Your task to perform on an android device: Show the shopping cart on walmart.com. Search for "alienware aurora" on walmart.com, select the first entry, add it to the cart, then select checkout. Image 0: 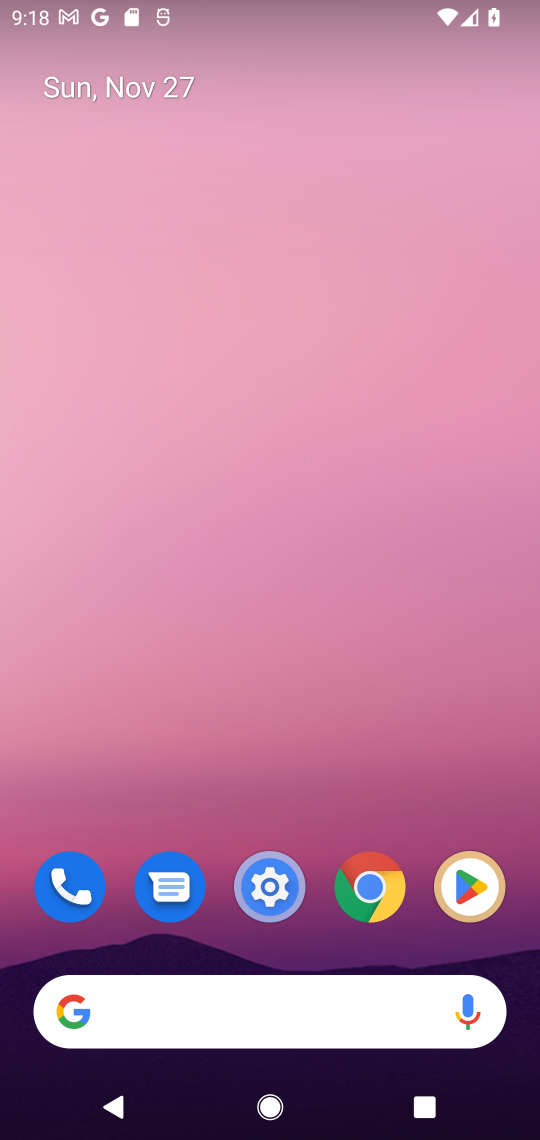
Step 0: click (354, 1030)
Your task to perform on an android device: Show the shopping cart on walmart.com. Search for "alienware aurora" on walmart.com, select the first entry, add it to the cart, then select checkout. Image 1: 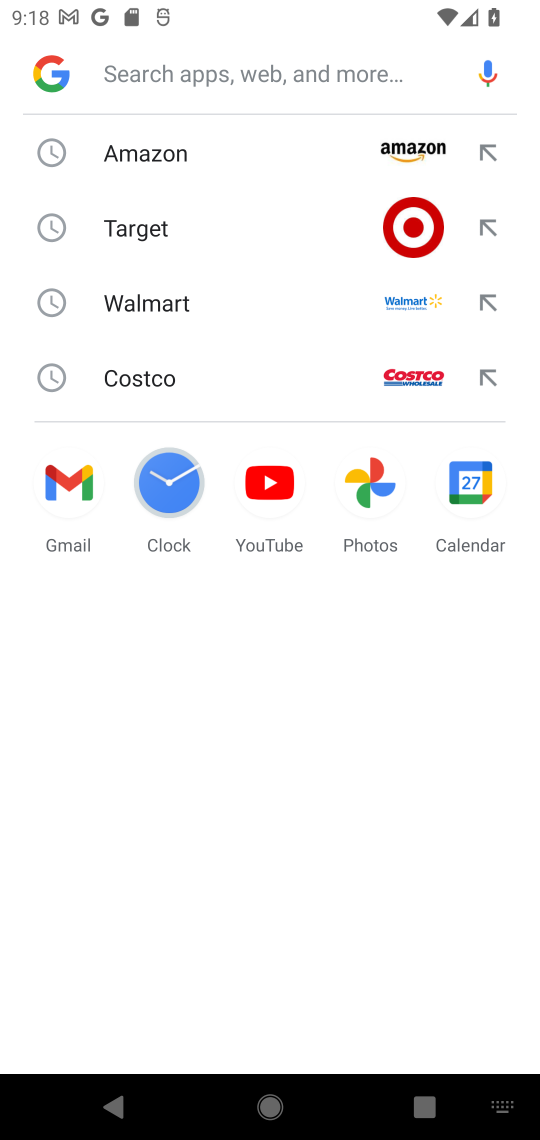
Step 1: type "alienware aurora"
Your task to perform on an android device: Show the shopping cart on walmart.com. Search for "alienware aurora" on walmart.com, select the first entry, add it to the cart, then select checkout. Image 2: 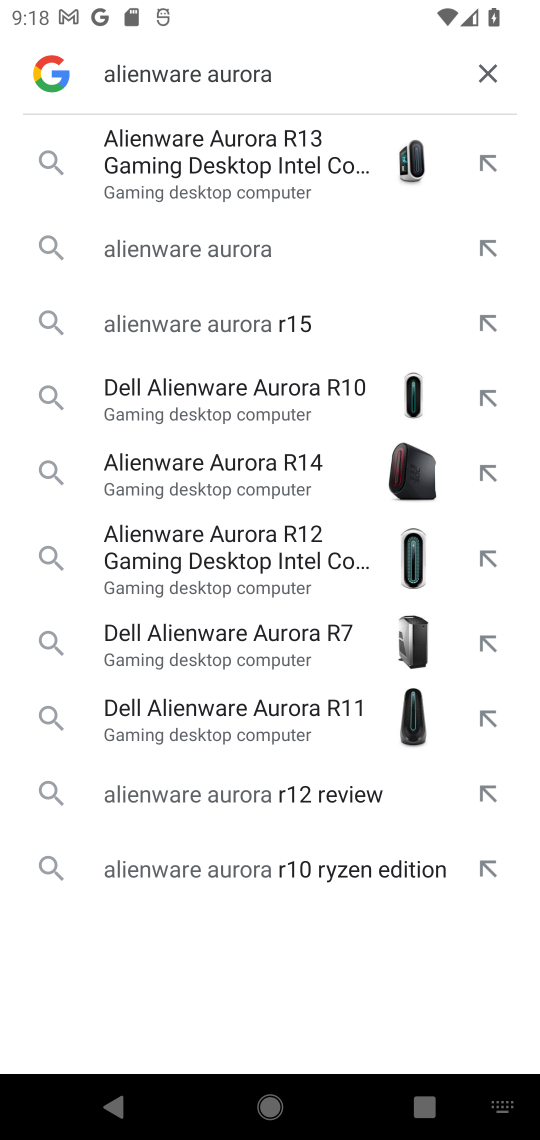
Step 2: click (241, 190)
Your task to perform on an android device: Show the shopping cart on walmart.com. Search for "alienware aurora" on walmart.com, select the first entry, add it to the cart, then select checkout. Image 3: 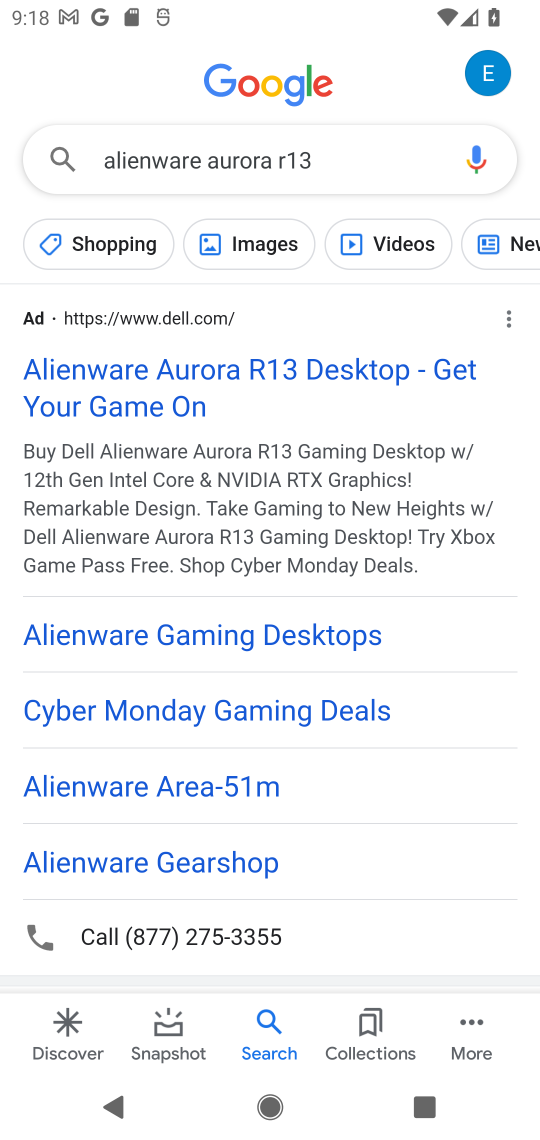
Step 3: click (256, 371)
Your task to perform on an android device: Show the shopping cart on walmart.com. Search for "alienware aurora" on walmart.com, select the first entry, add it to the cart, then select checkout. Image 4: 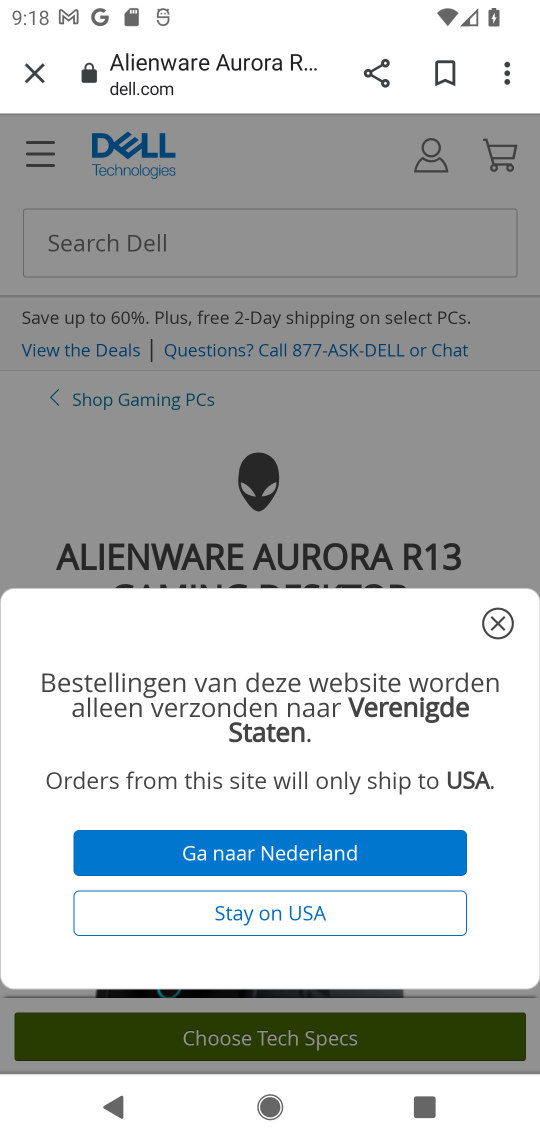
Step 4: click (498, 626)
Your task to perform on an android device: Show the shopping cart on walmart.com. Search for "alienware aurora" on walmart.com, select the first entry, add it to the cart, then select checkout. Image 5: 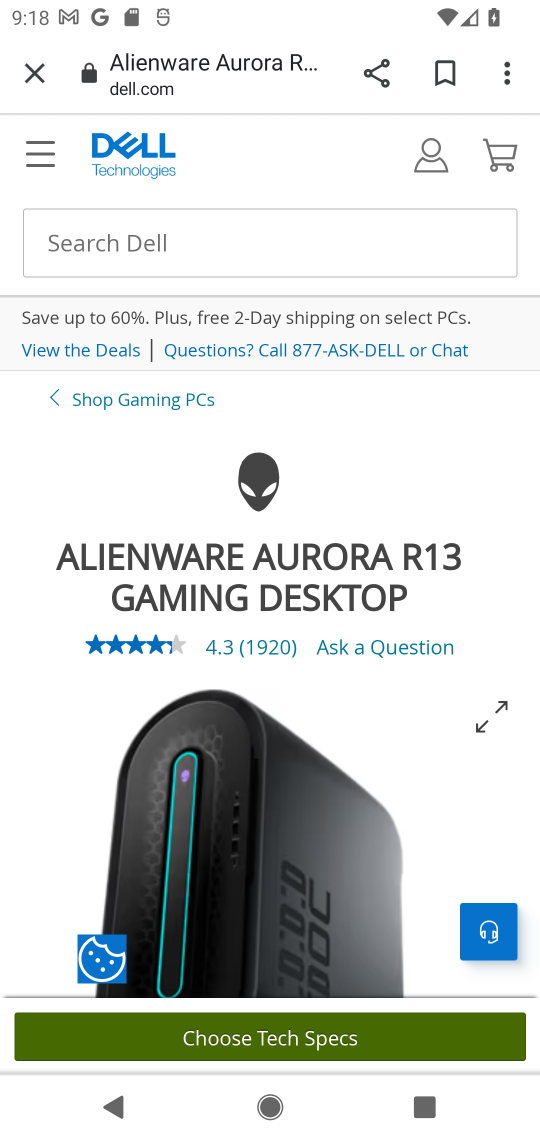
Step 5: task complete